Your task to perform on an android device: check google app version Image 0: 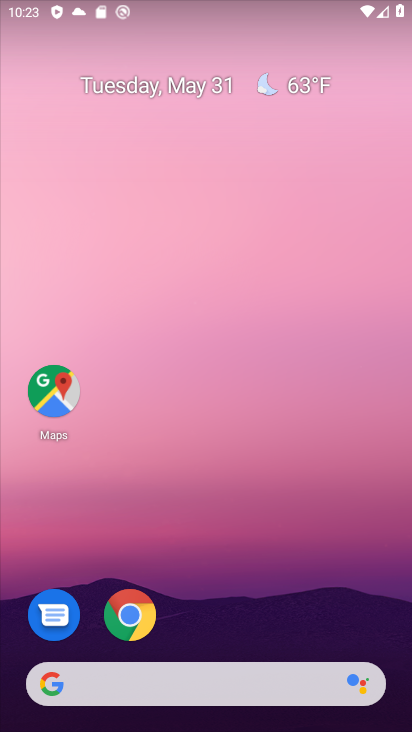
Step 0: drag from (336, 573) to (315, 199)
Your task to perform on an android device: check google app version Image 1: 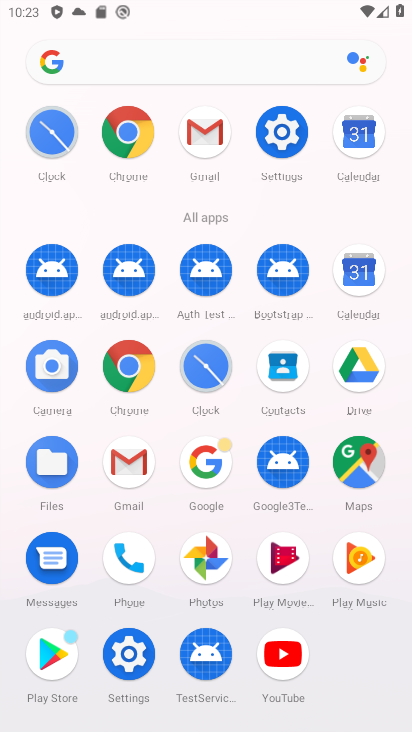
Step 1: click (205, 460)
Your task to perform on an android device: check google app version Image 2: 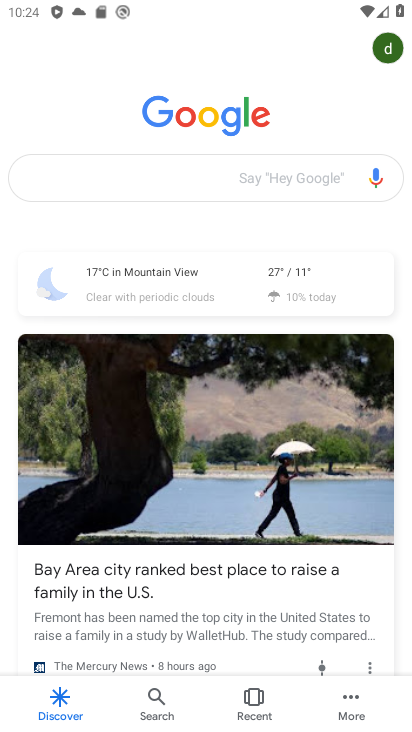
Step 2: click (350, 710)
Your task to perform on an android device: check google app version Image 3: 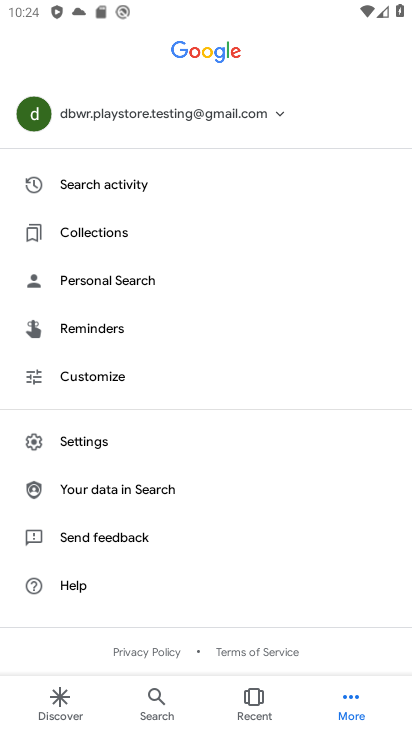
Step 3: click (134, 454)
Your task to perform on an android device: check google app version Image 4: 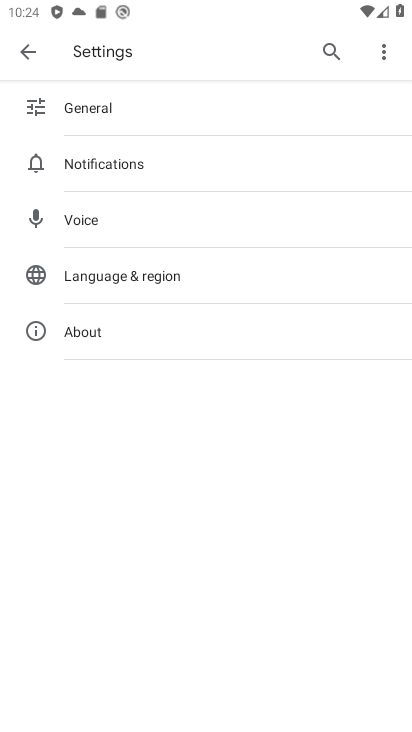
Step 4: click (161, 322)
Your task to perform on an android device: check google app version Image 5: 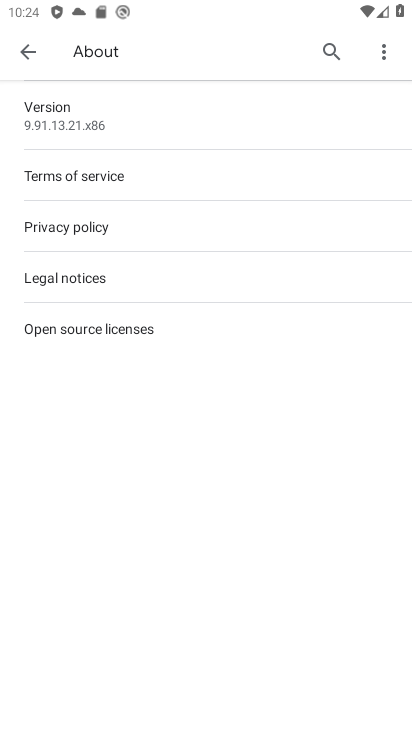
Step 5: task complete